Your task to perform on an android device: turn pop-ups off in chrome Image 0: 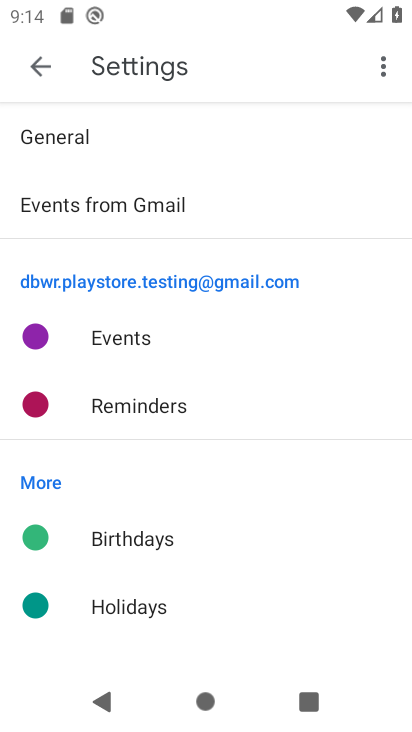
Step 0: press home button
Your task to perform on an android device: turn pop-ups off in chrome Image 1: 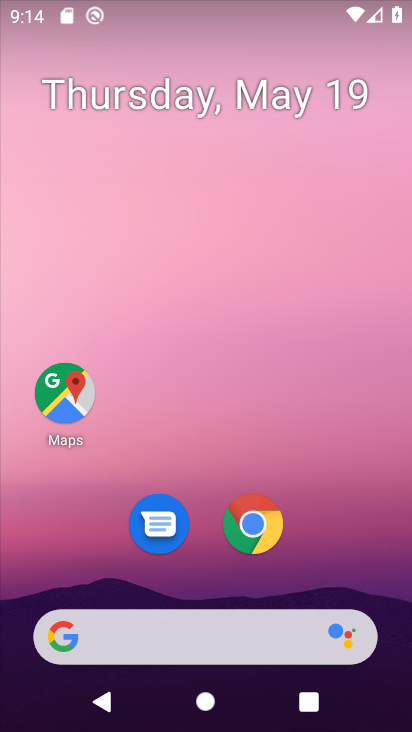
Step 1: click (259, 524)
Your task to perform on an android device: turn pop-ups off in chrome Image 2: 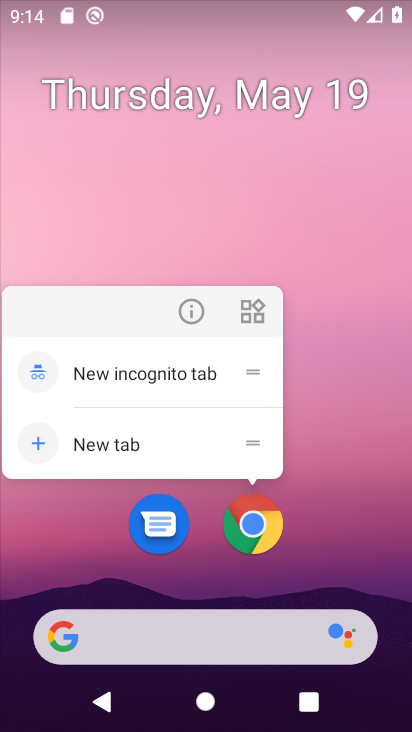
Step 2: click (259, 525)
Your task to perform on an android device: turn pop-ups off in chrome Image 3: 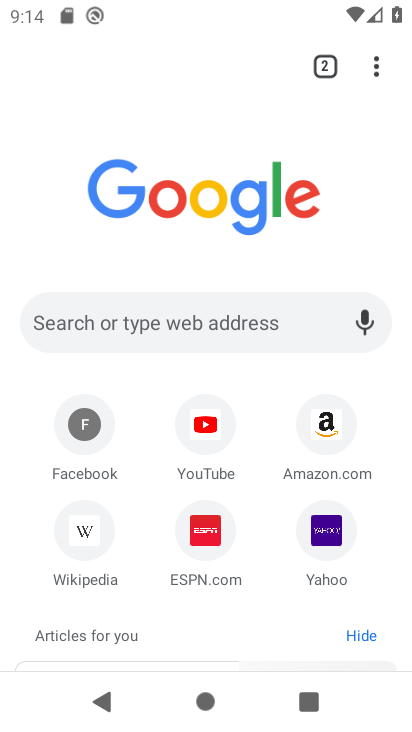
Step 3: click (379, 62)
Your task to perform on an android device: turn pop-ups off in chrome Image 4: 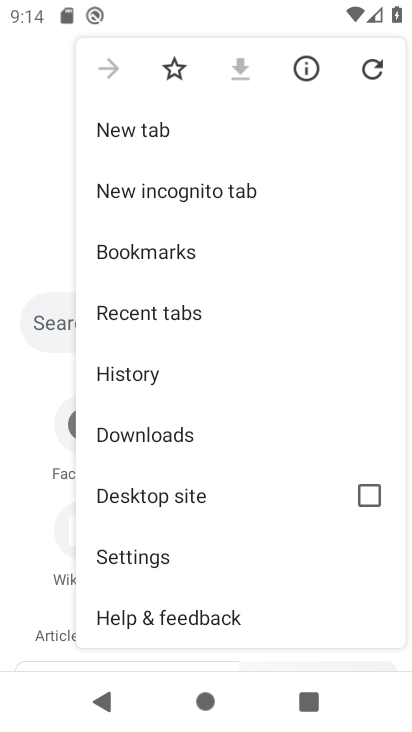
Step 4: click (179, 556)
Your task to perform on an android device: turn pop-ups off in chrome Image 5: 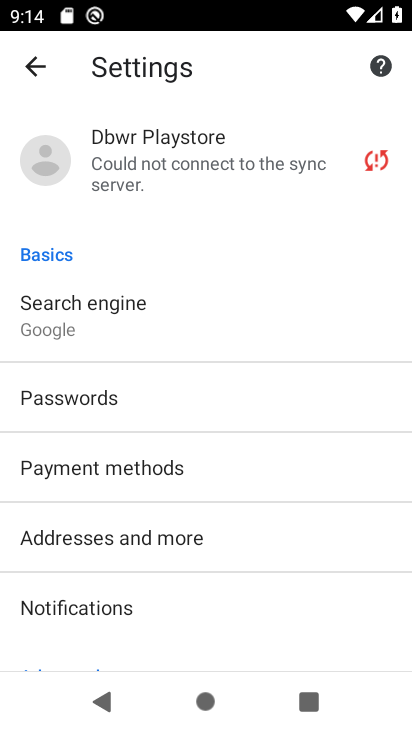
Step 5: drag from (179, 554) to (190, 168)
Your task to perform on an android device: turn pop-ups off in chrome Image 6: 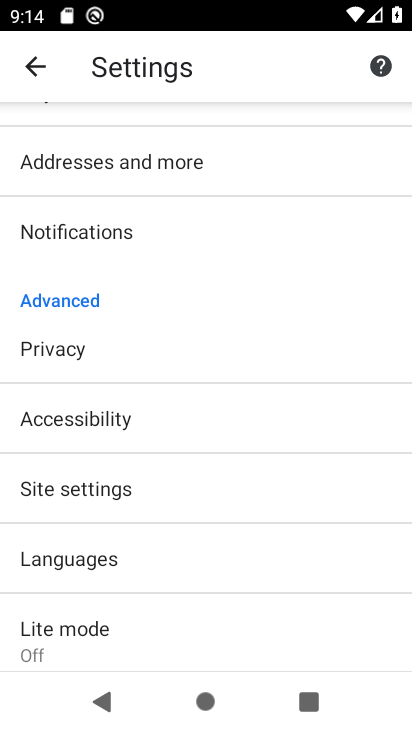
Step 6: click (136, 493)
Your task to perform on an android device: turn pop-ups off in chrome Image 7: 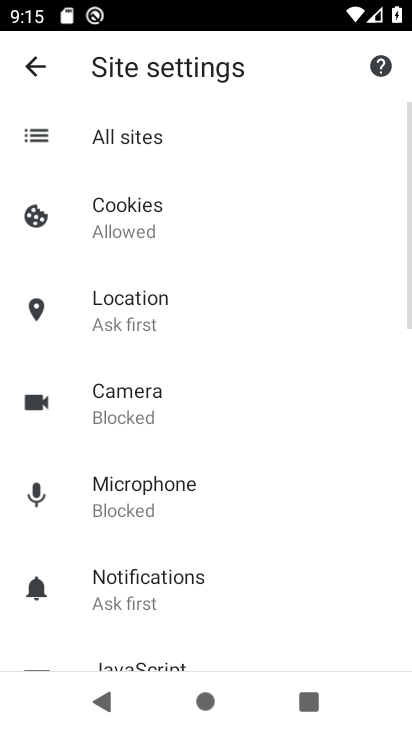
Step 7: drag from (246, 537) to (279, 198)
Your task to perform on an android device: turn pop-ups off in chrome Image 8: 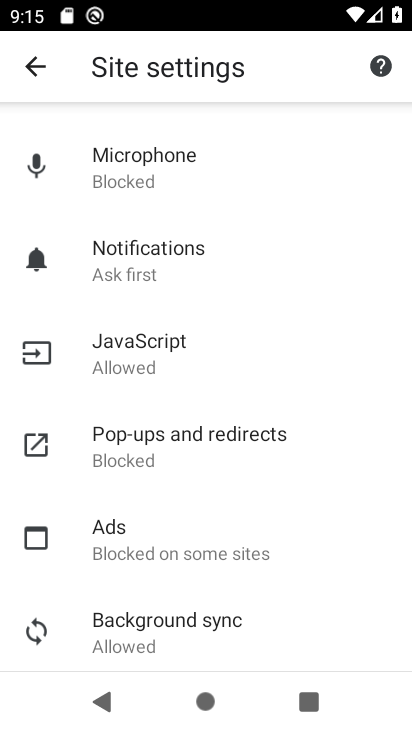
Step 8: click (234, 438)
Your task to perform on an android device: turn pop-ups off in chrome Image 9: 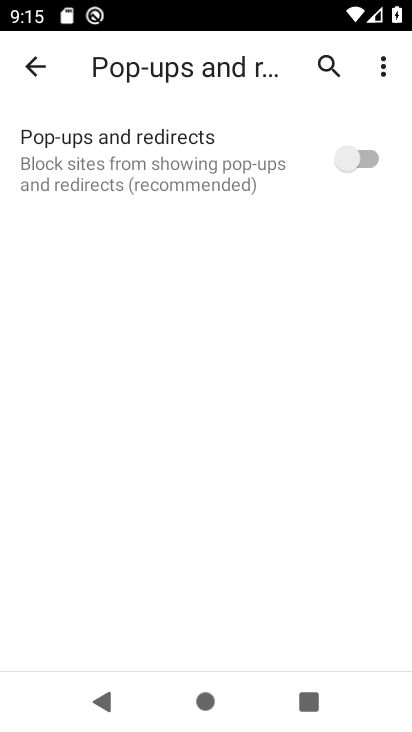
Step 9: task complete